Your task to perform on an android device: toggle show notifications on the lock screen Image 0: 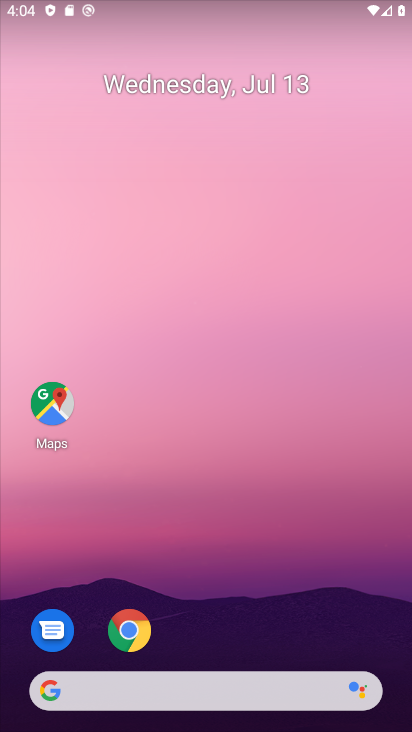
Step 0: drag from (301, 555) to (340, 83)
Your task to perform on an android device: toggle show notifications on the lock screen Image 1: 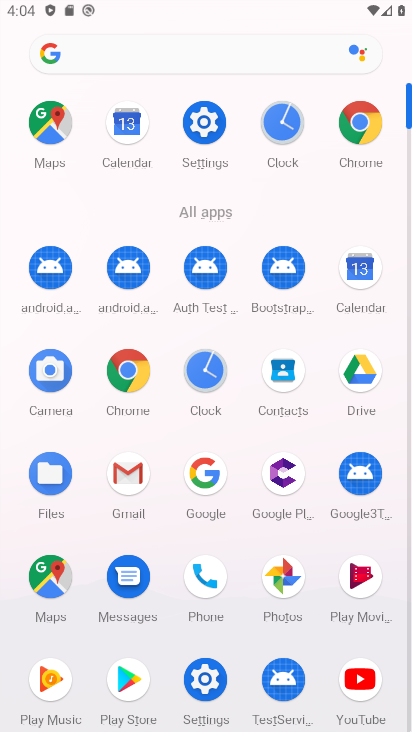
Step 1: click (219, 131)
Your task to perform on an android device: toggle show notifications on the lock screen Image 2: 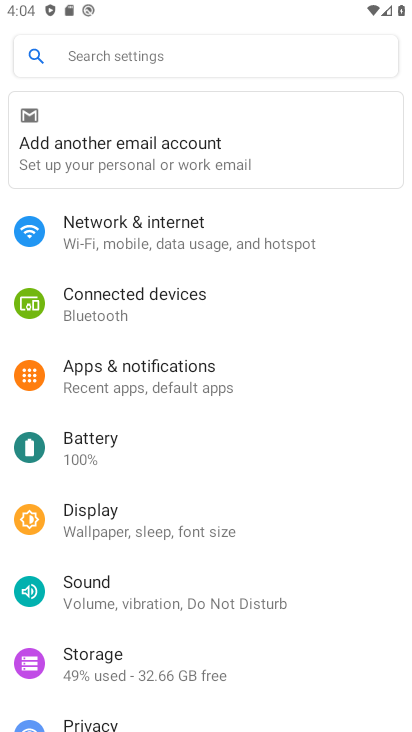
Step 2: click (114, 376)
Your task to perform on an android device: toggle show notifications on the lock screen Image 3: 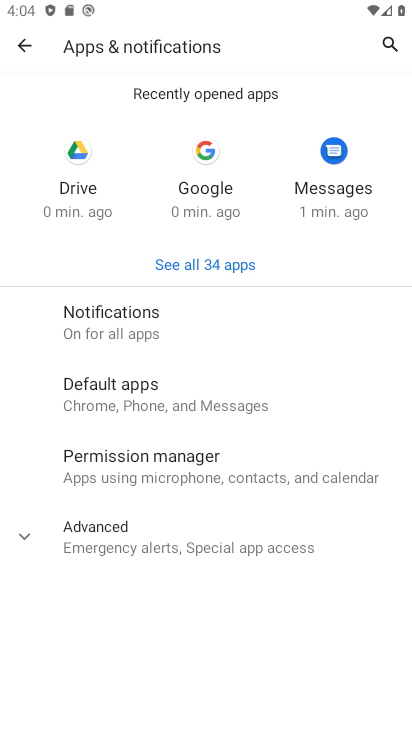
Step 3: click (125, 317)
Your task to perform on an android device: toggle show notifications on the lock screen Image 4: 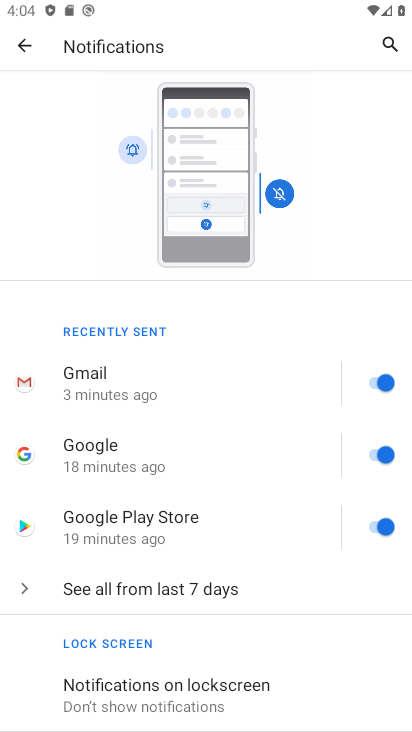
Step 4: click (160, 695)
Your task to perform on an android device: toggle show notifications on the lock screen Image 5: 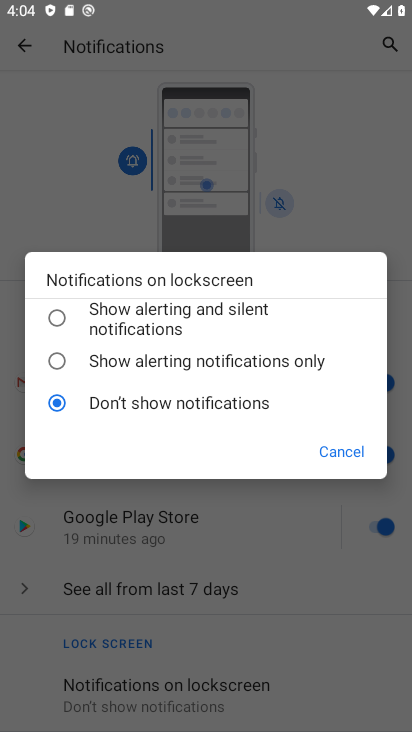
Step 5: click (50, 314)
Your task to perform on an android device: toggle show notifications on the lock screen Image 6: 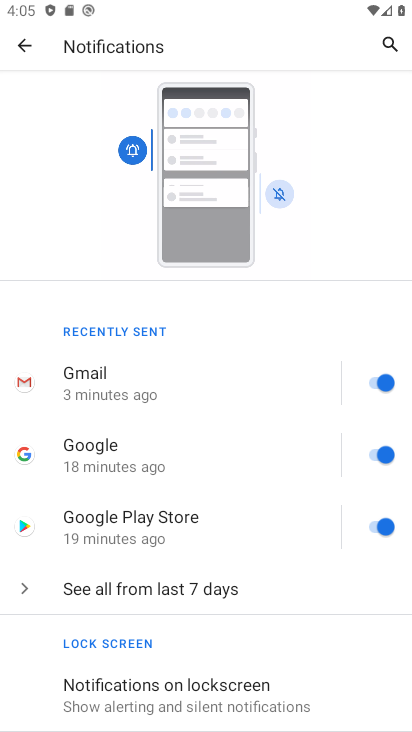
Step 6: task complete